Your task to perform on an android device: show emergency info Image 0: 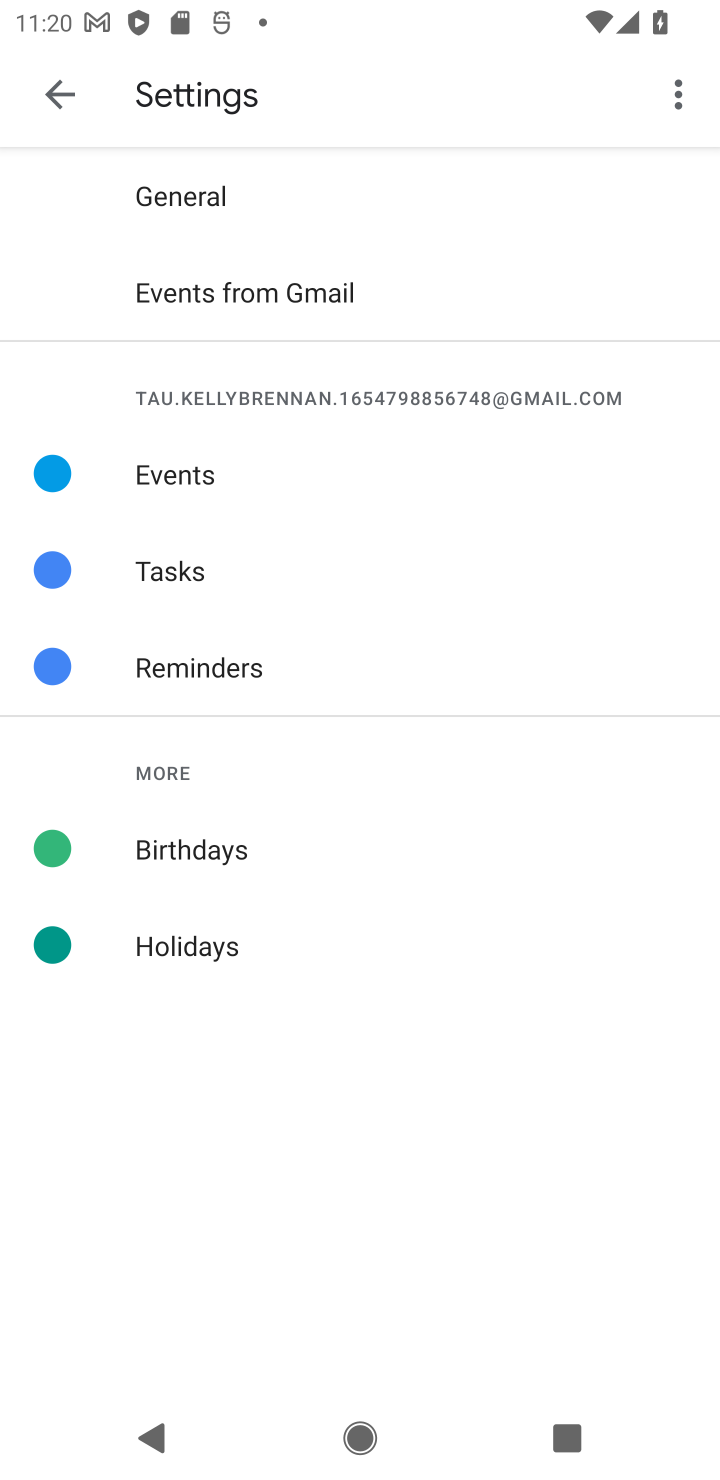
Step 0: press home button
Your task to perform on an android device: show emergency info Image 1: 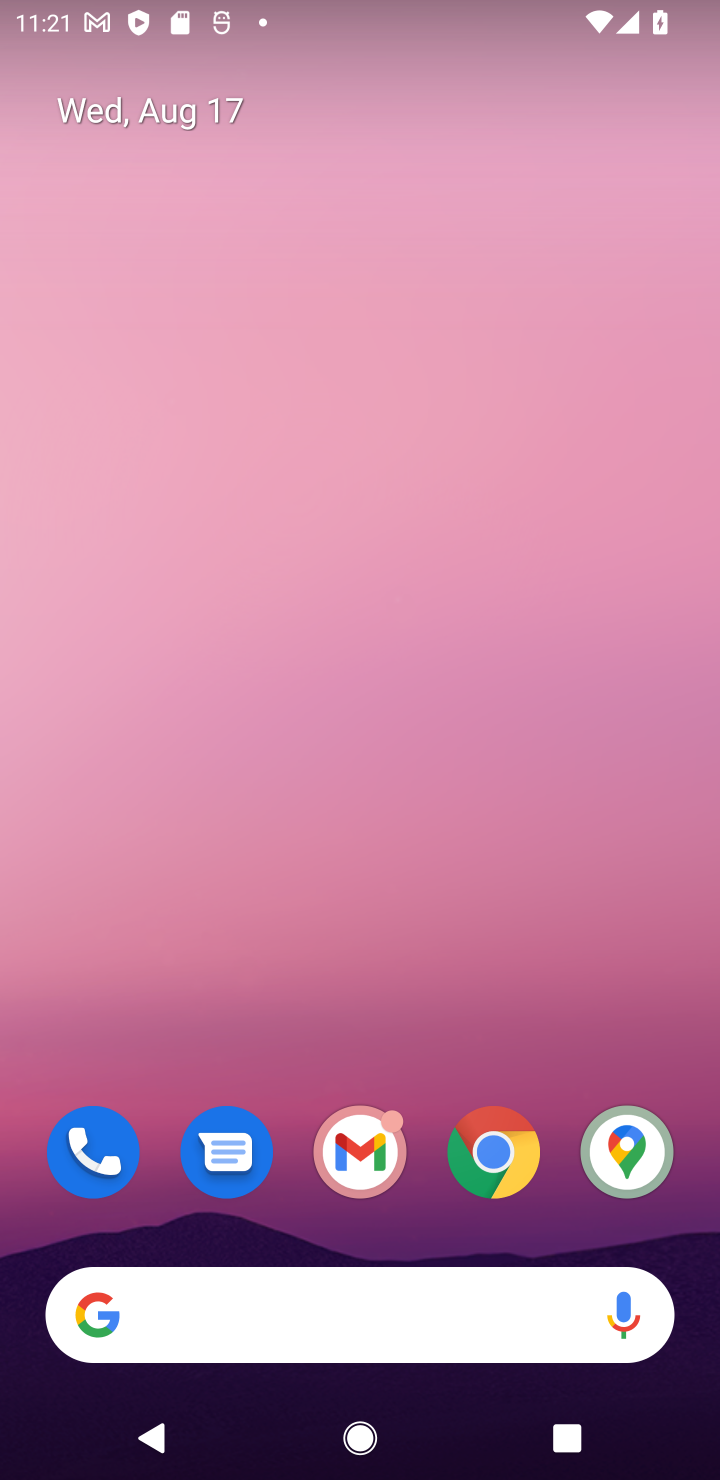
Step 1: drag from (666, 1216) to (701, 1375)
Your task to perform on an android device: show emergency info Image 2: 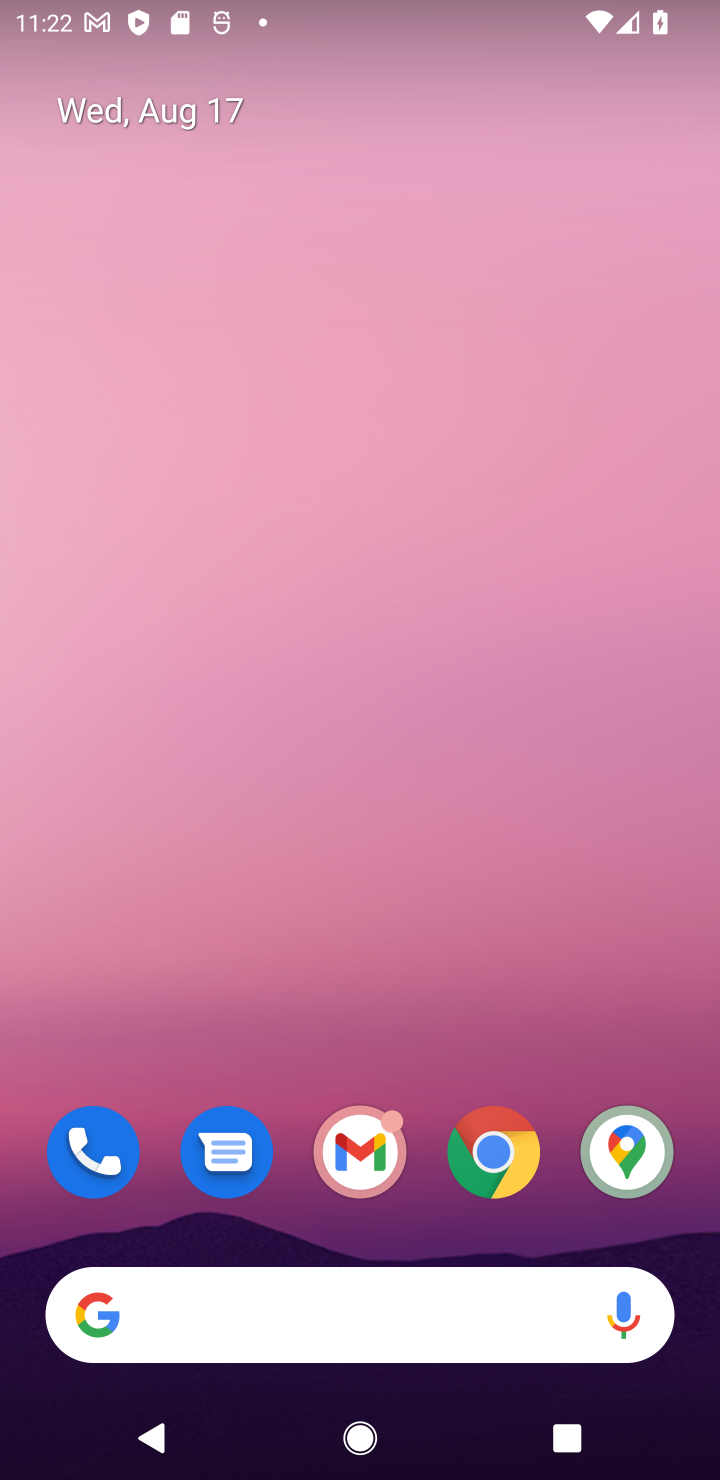
Step 2: drag from (581, 1236) to (355, 58)
Your task to perform on an android device: show emergency info Image 3: 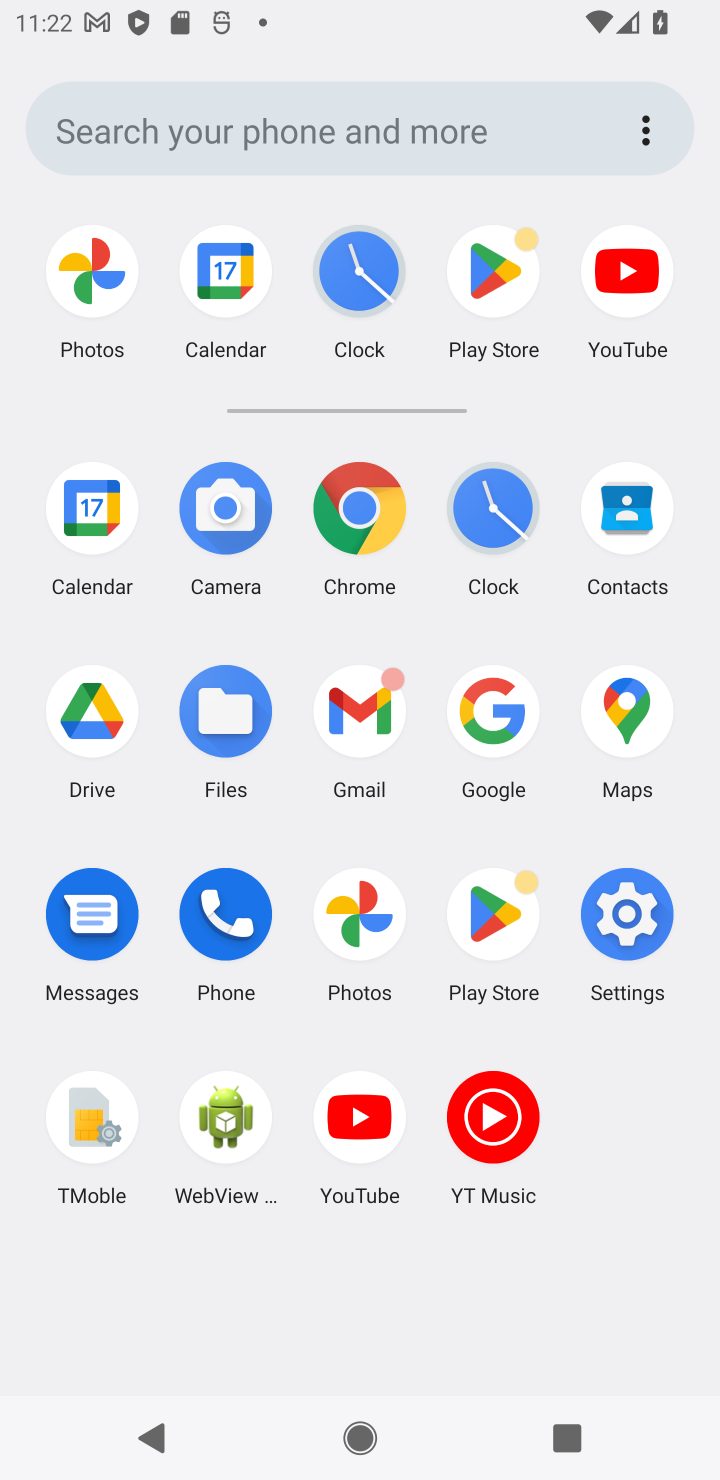
Step 3: click (623, 925)
Your task to perform on an android device: show emergency info Image 4: 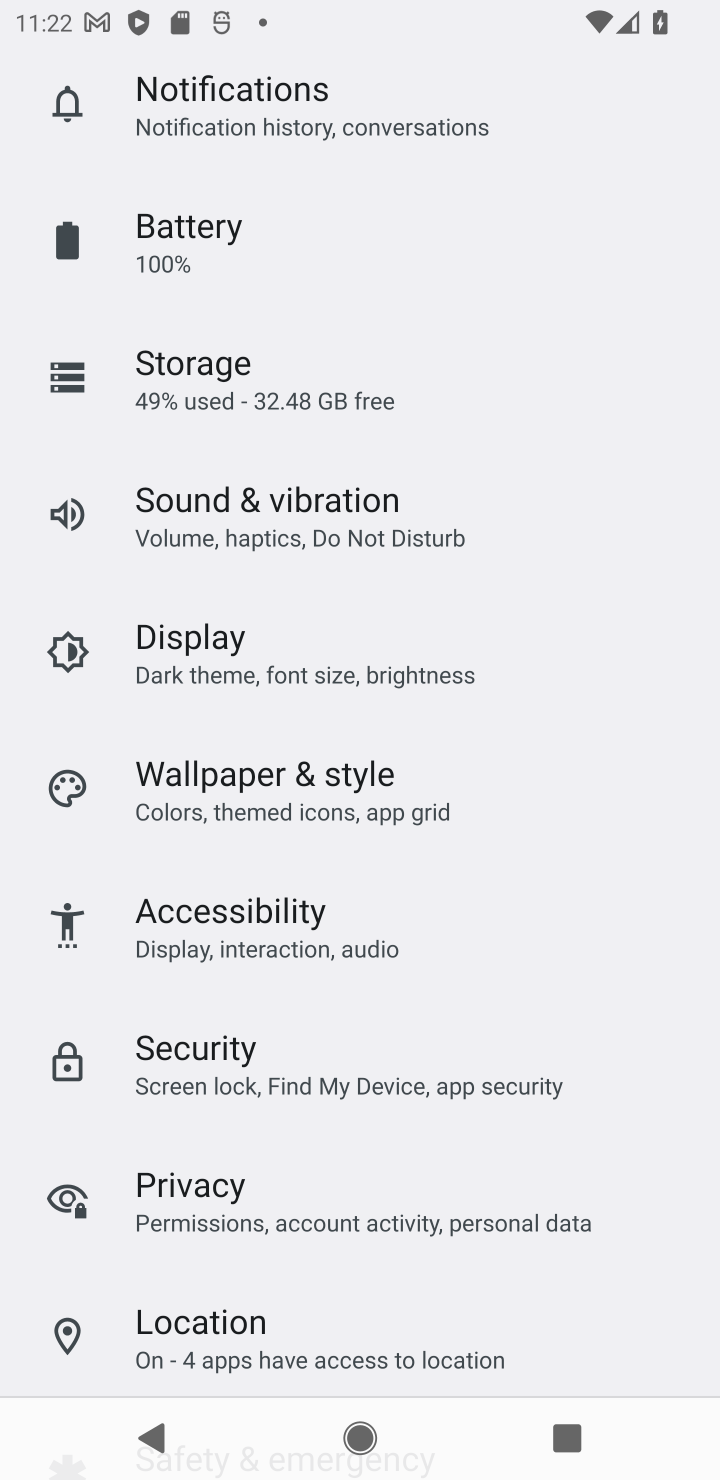
Step 4: drag from (441, 1312) to (393, 74)
Your task to perform on an android device: show emergency info Image 5: 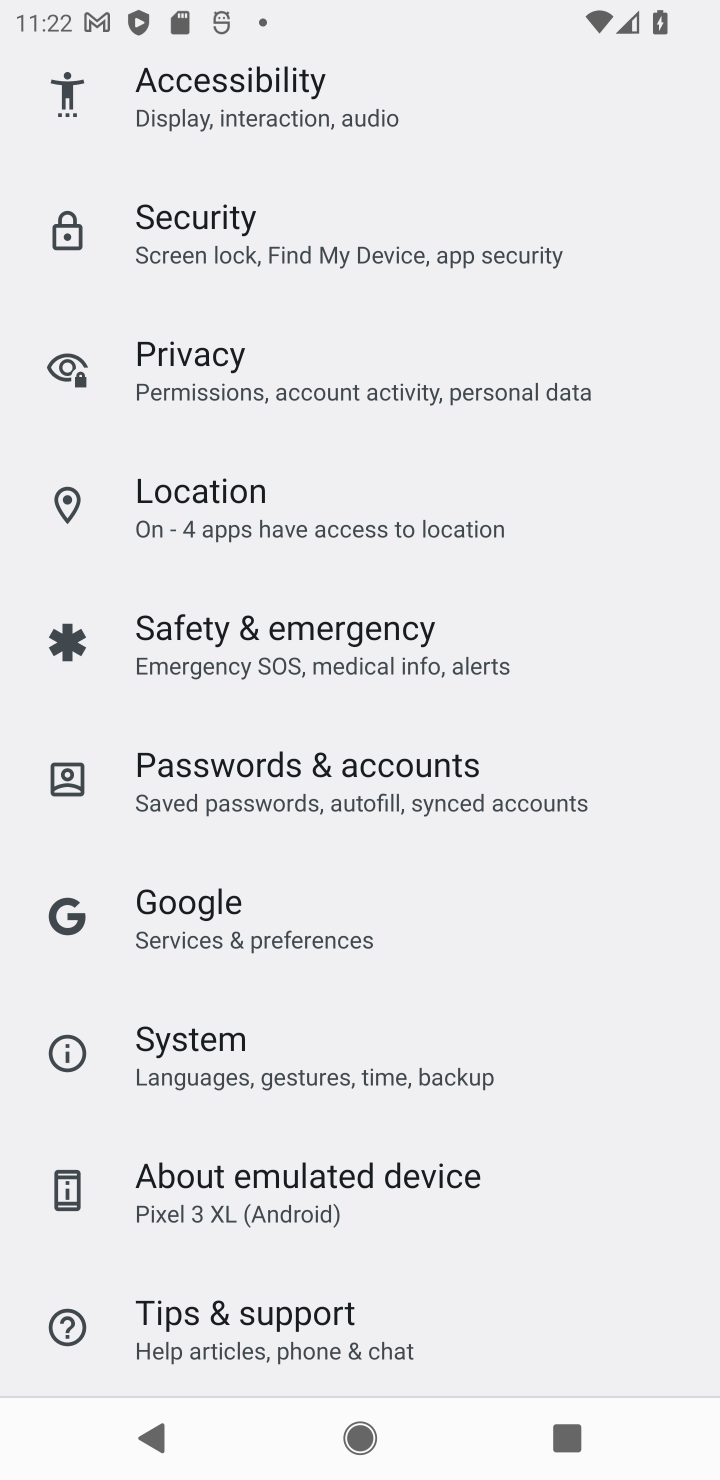
Step 5: drag from (286, 1278) to (338, 316)
Your task to perform on an android device: show emergency info Image 6: 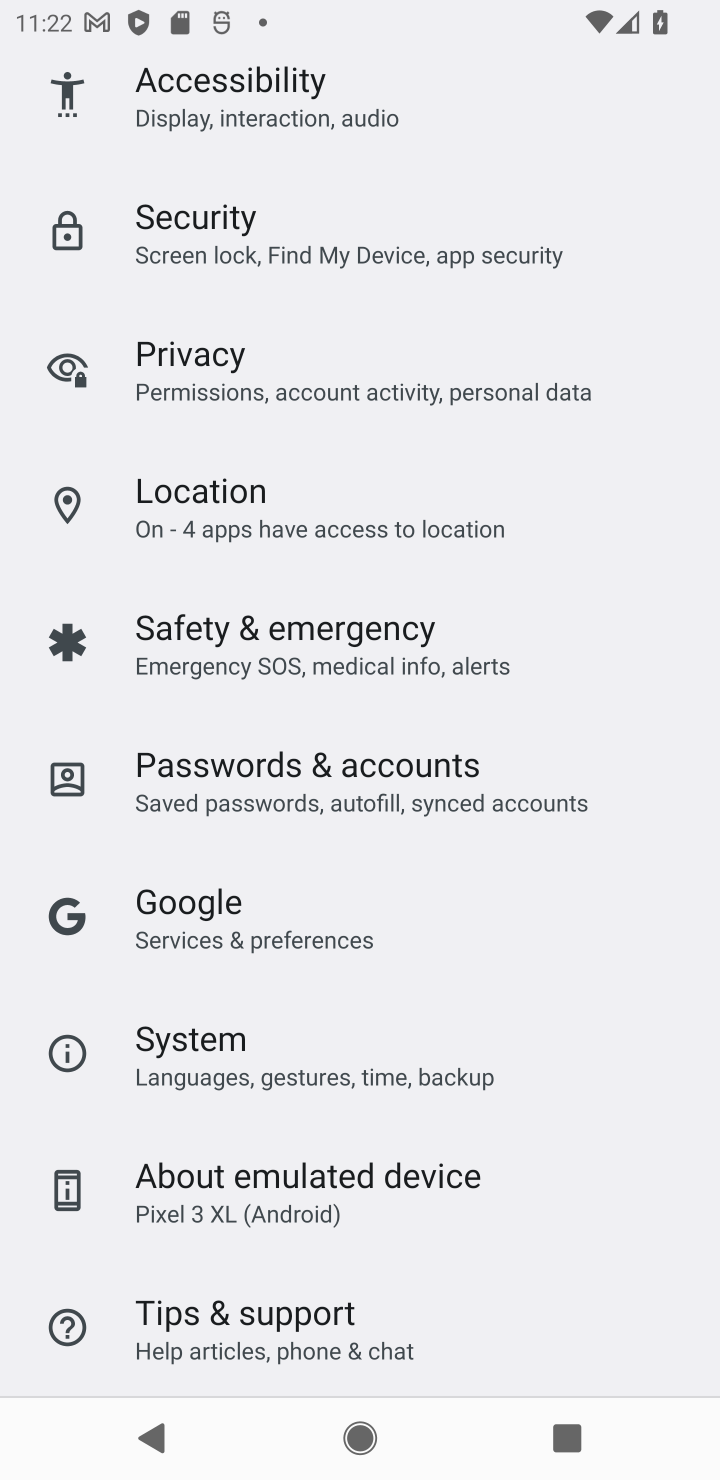
Step 6: click (238, 1048)
Your task to perform on an android device: show emergency info Image 7: 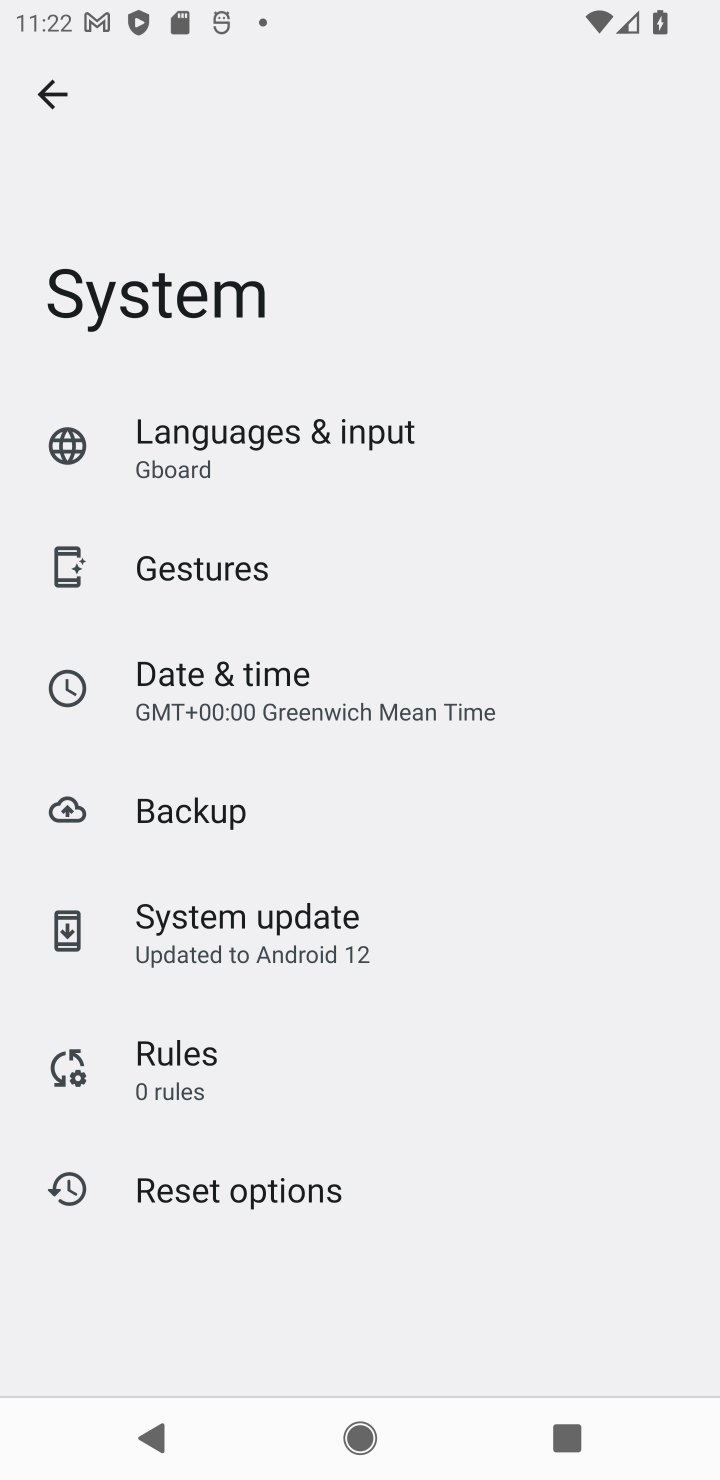
Step 7: task complete